Your task to perform on an android device: set the stopwatch Image 0: 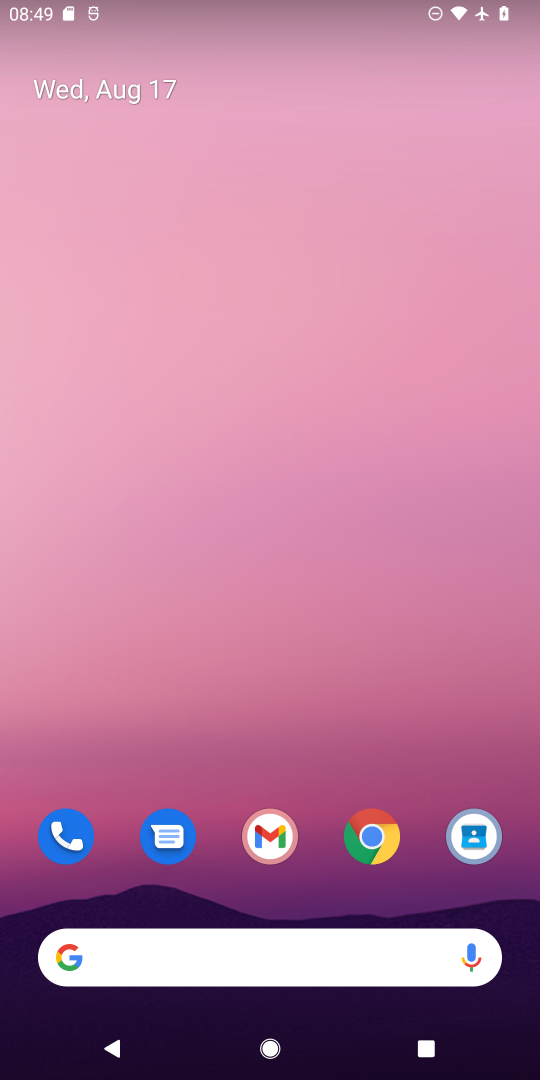
Step 0: drag from (377, 833) to (403, 145)
Your task to perform on an android device: set the stopwatch Image 1: 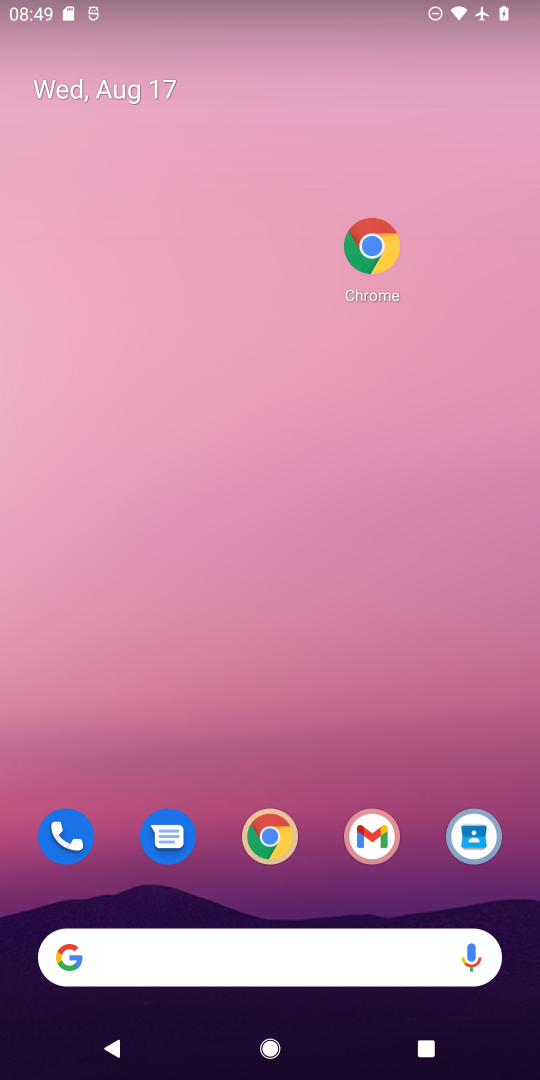
Step 1: drag from (191, 792) to (191, 138)
Your task to perform on an android device: set the stopwatch Image 2: 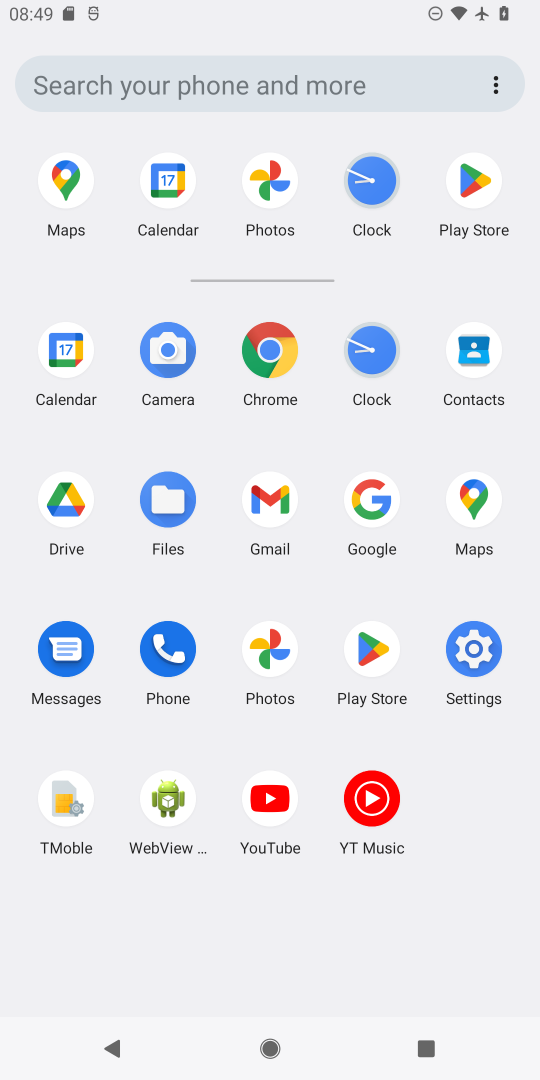
Step 2: click (376, 331)
Your task to perform on an android device: set the stopwatch Image 3: 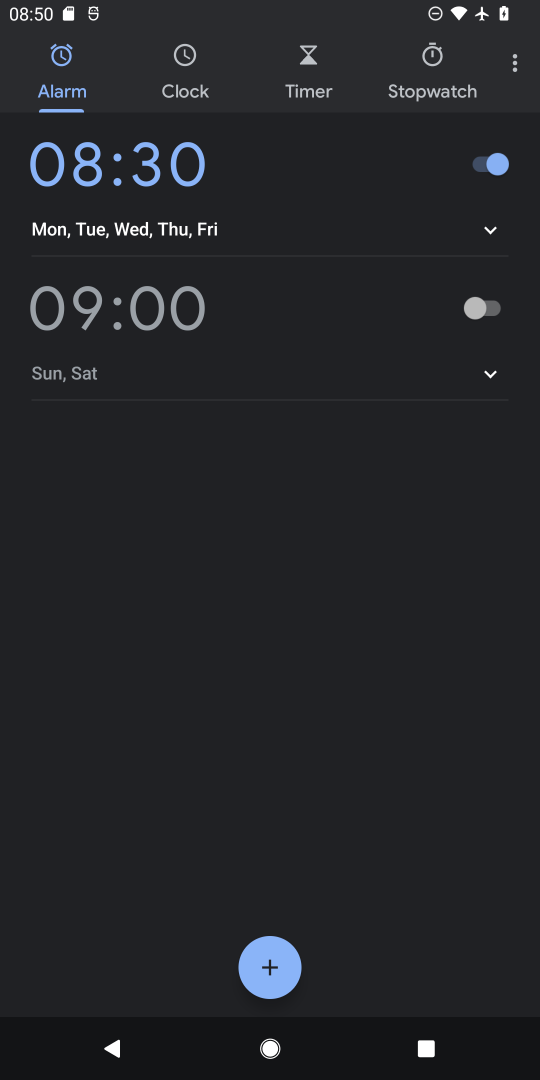
Step 3: click (406, 90)
Your task to perform on an android device: set the stopwatch Image 4: 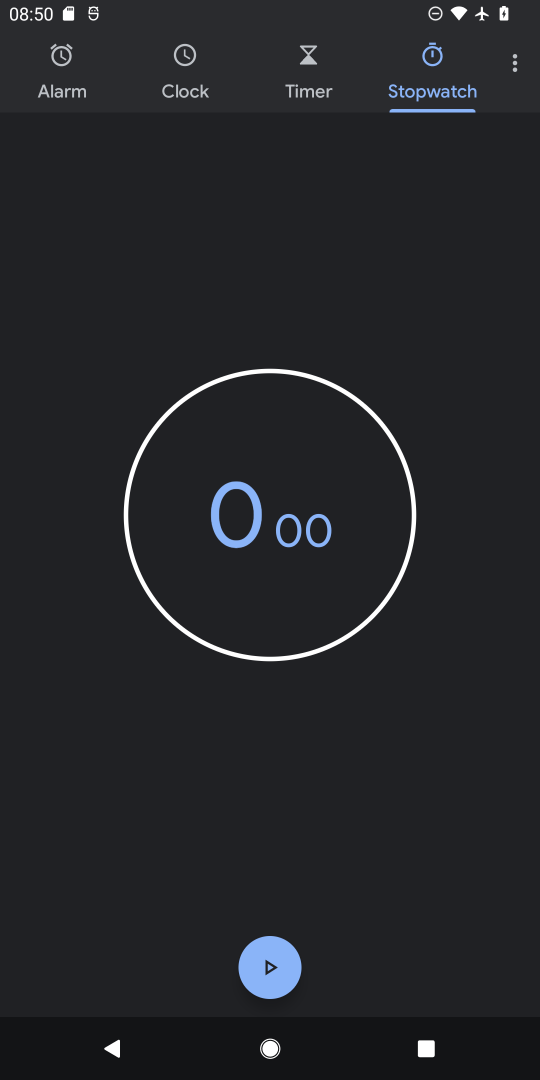
Step 4: click (253, 959)
Your task to perform on an android device: set the stopwatch Image 5: 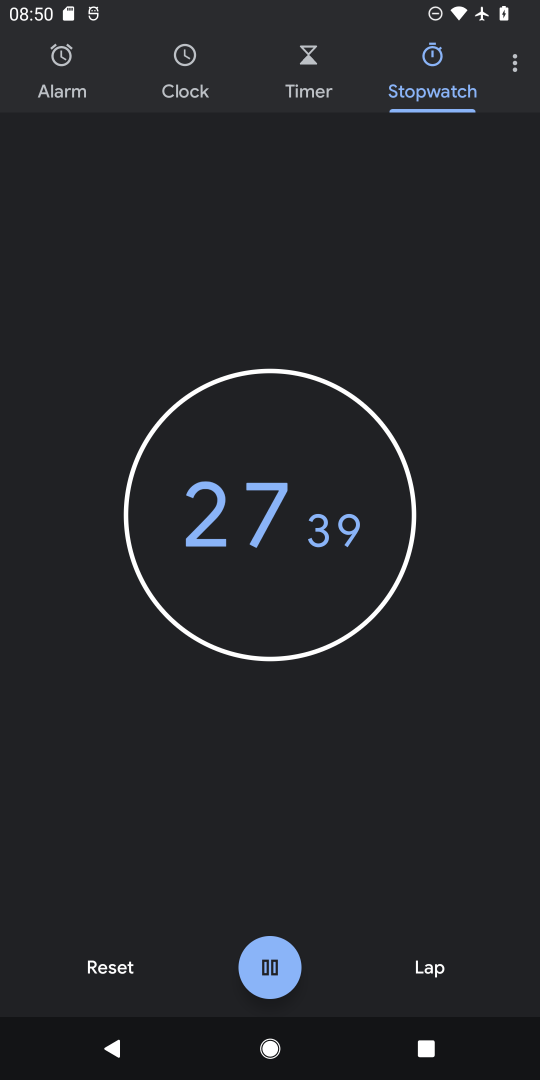
Step 5: task complete